Your task to perform on an android device: set the stopwatch Image 0: 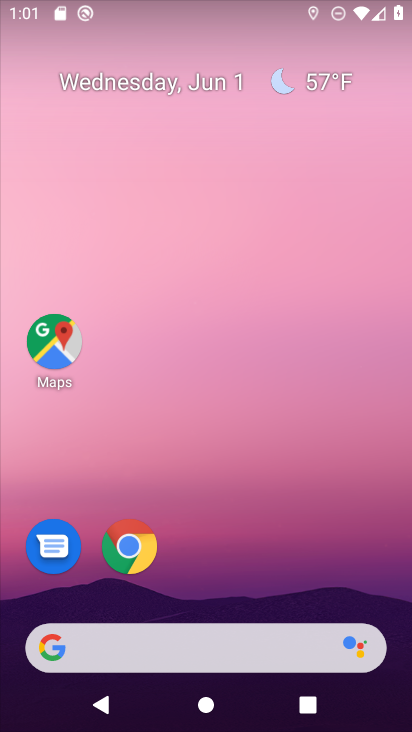
Step 0: drag from (232, 619) to (244, 7)
Your task to perform on an android device: set the stopwatch Image 1: 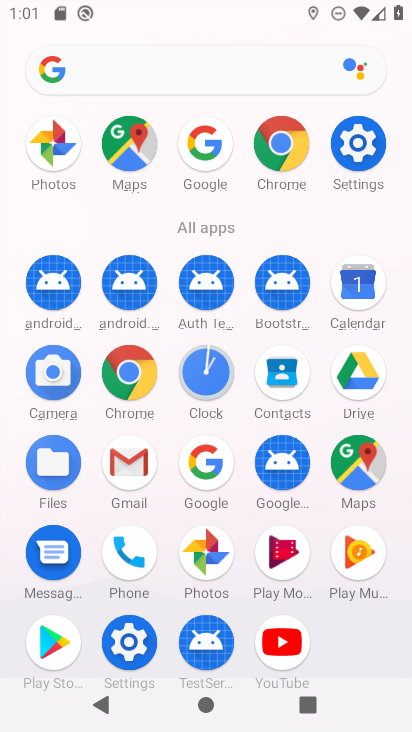
Step 1: click (211, 379)
Your task to perform on an android device: set the stopwatch Image 2: 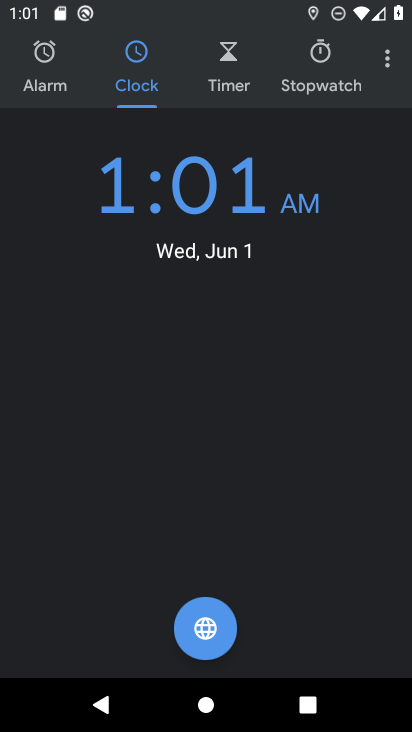
Step 2: click (331, 71)
Your task to perform on an android device: set the stopwatch Image 3: 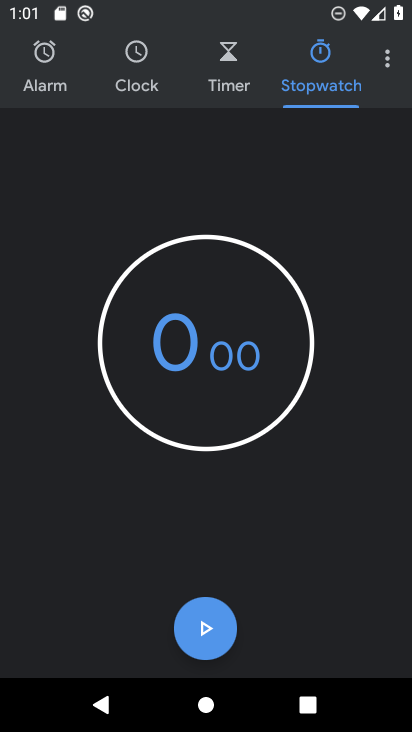
Step 3: task complete